Your task to perform on an android device: turn off wifi Image 0: 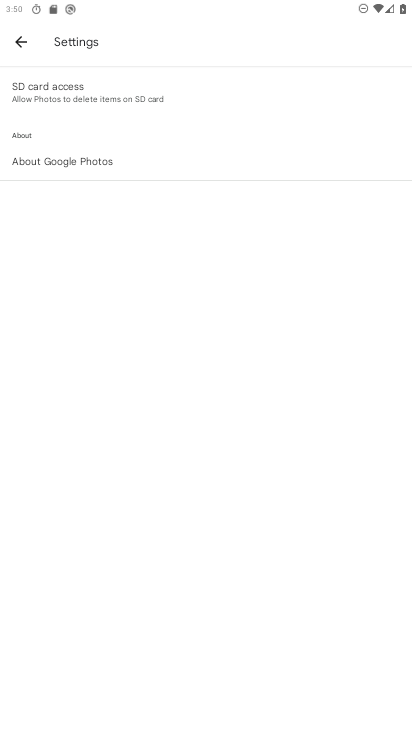
Step 0: press home button
Your task to perform on an android device: turn off wifi Image 1: 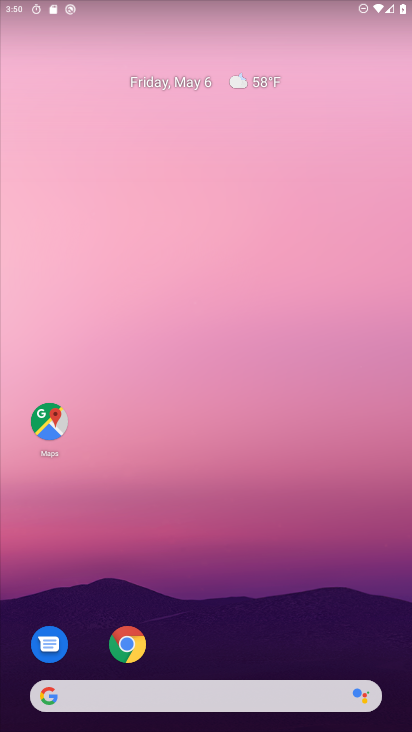
Step 1: drag from (211, 728) to (232, 105)
Your task to perform on an android device: turn off wifi Image 2: 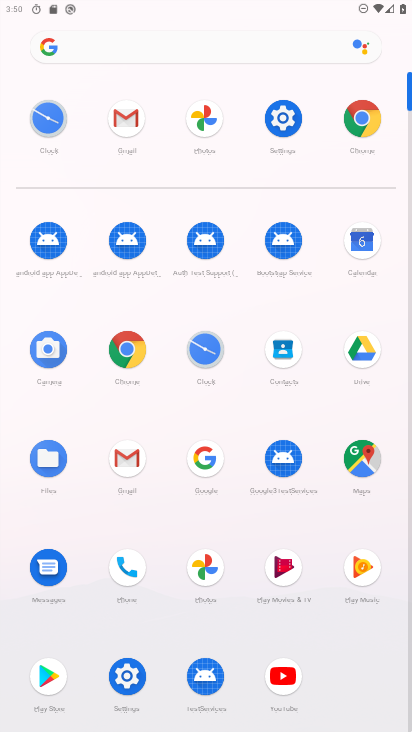
Step 2: click (277, 120)
Your task to perform on an android device: turn off wifi Image 3: 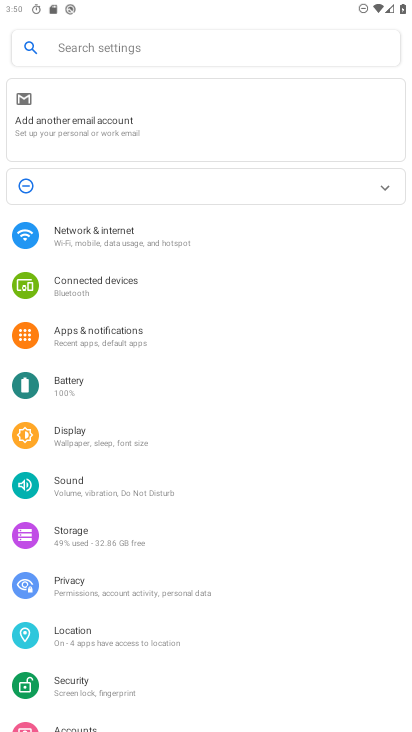
Step 3: click (91, 236)
Your task to perform on an android device: turn off wifi Image 4: 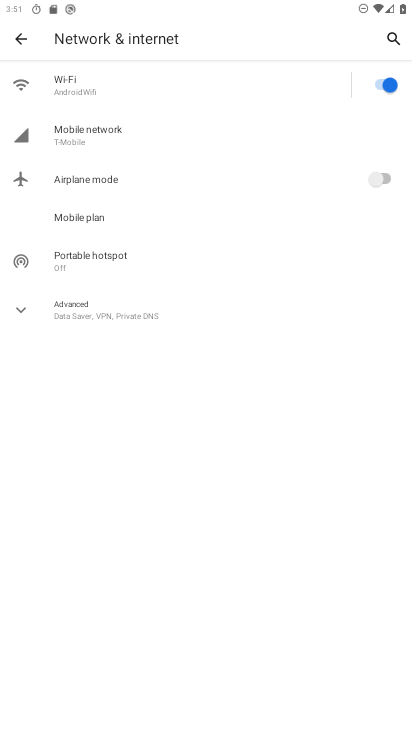
Step 4: click (380, 84)
Your task to perform on an android device: turn off wifi Image 5: 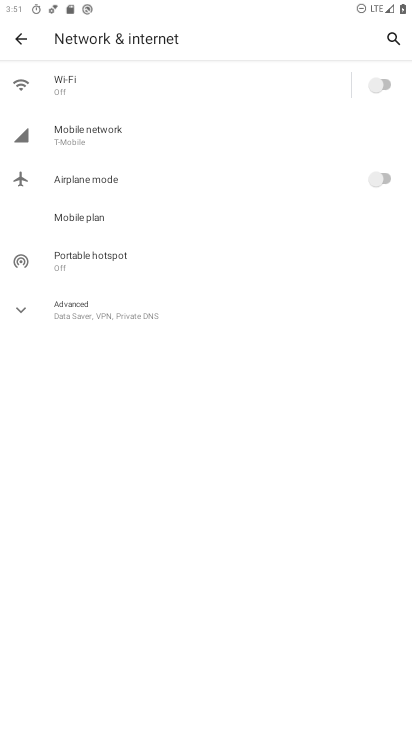
Step 5: task complete